Your task to perform on an android device: create a new album in the google photos Image 0: 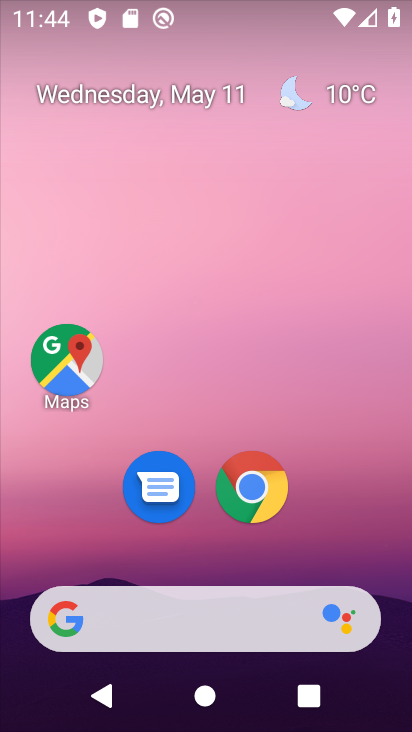
Step 0: drag from (243, 593) to (392, 115)
Your task to perform on an android device: create a new album in the google photos Image 1: 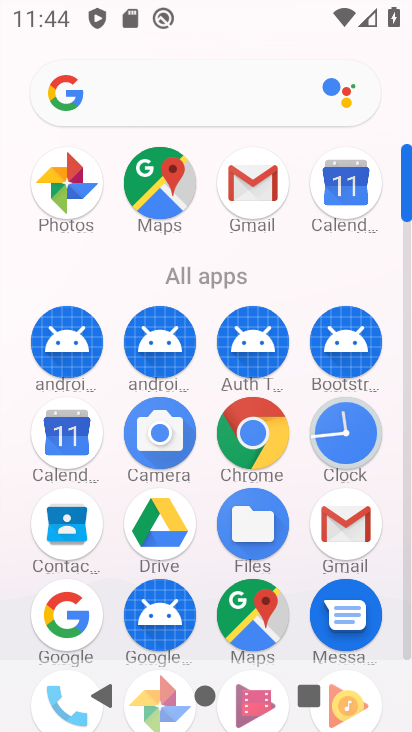
Step 1: click (75, 176)
Your task to perform on an android device: create a new album in the google photos Image 2: 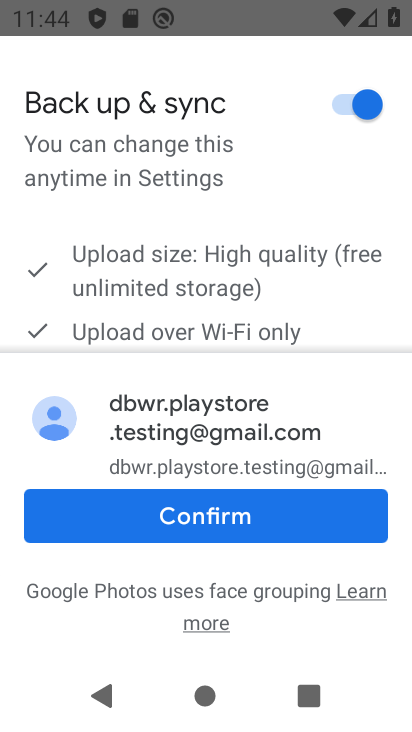
Step 2: click (173, 502)
Your task to perform on an android device: create a new album in the google photos Image 3: 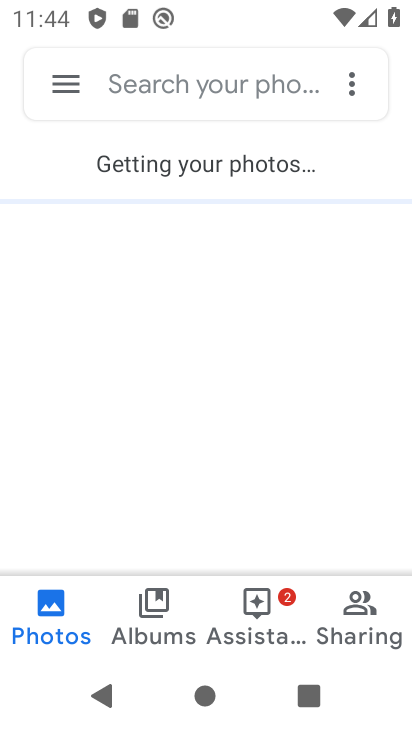
Step 3: click (354, 82)
Your task to perform on an android device: create a new album in the google photos Image 4: 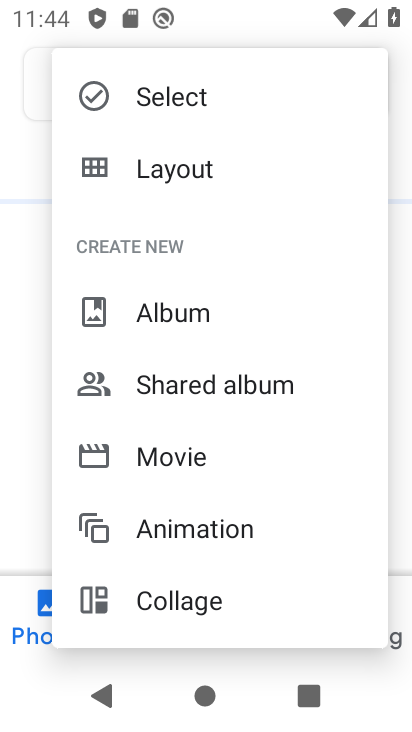
Step 4: click (177, 299)
Your task to perform on an android device: create a new album in the google photos Image 5: 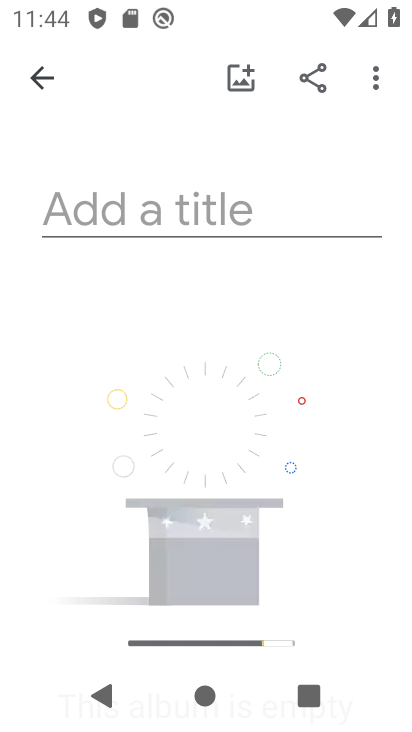
Step 5: click (134, 216)
Your task to perform on an android device: create a new album in the google photos Image 6: 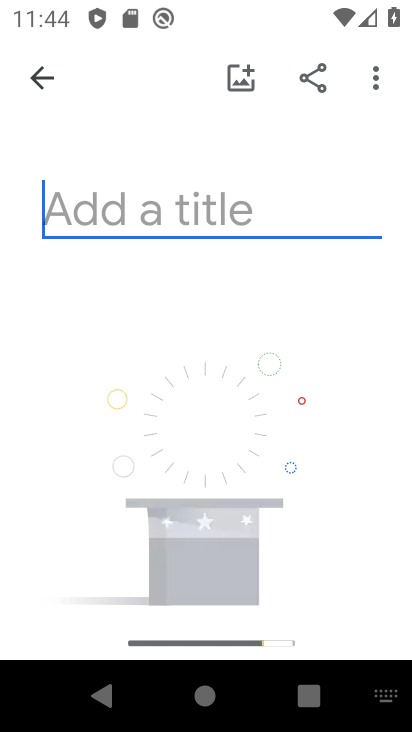
Step 6: type "Ram"
Your task to perform on an android device: create a new album in the google photos Image 7: 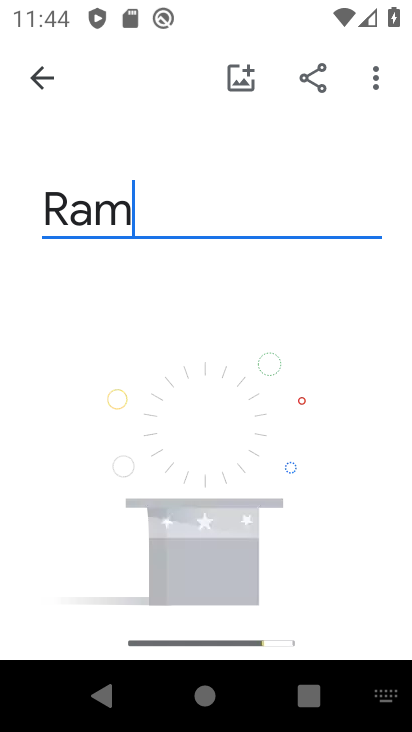
Step 7: click (242, 75)
Your task to perform on an android device: create a new album in the google photos Image 8: 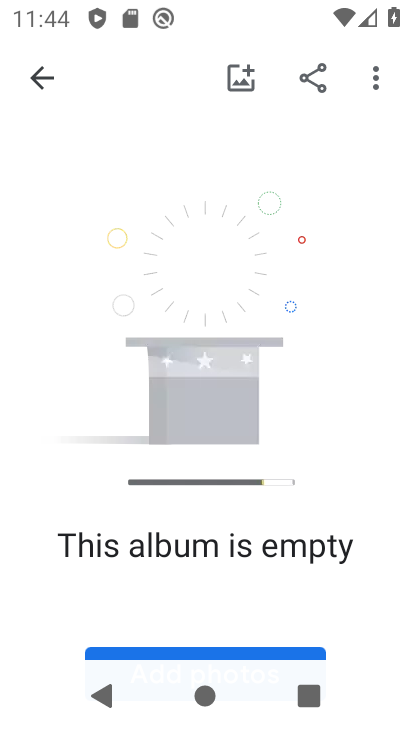
Step 8: click (242, 75)
Your task to perform on an android device: create a new album in the google photos Image 9: 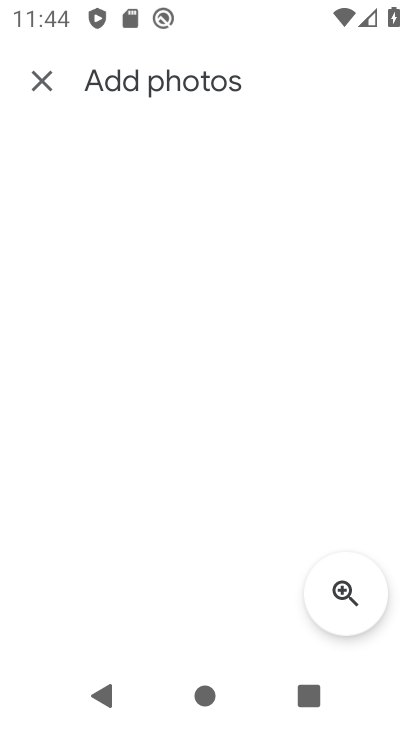
Step 9: task complete